Your task to perform on an android device: move a message to another label in the gmail app Image 0: 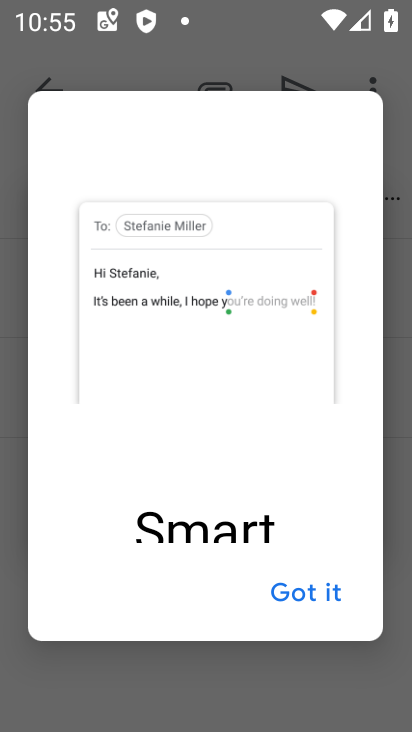
Step 0: press home button
Your task to perform on an android device: move a message to another label in the gmail app Image 1: 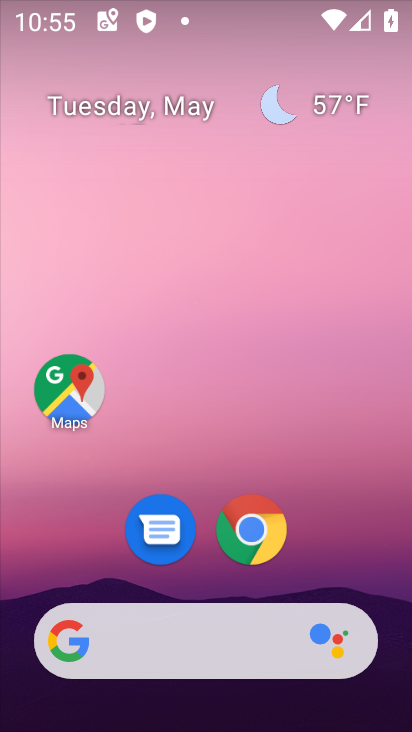
Step 1: drag from (201, 565) to (262, 0)
Your task to perform on an android device: move a message to another label in the gmail app Image 2: 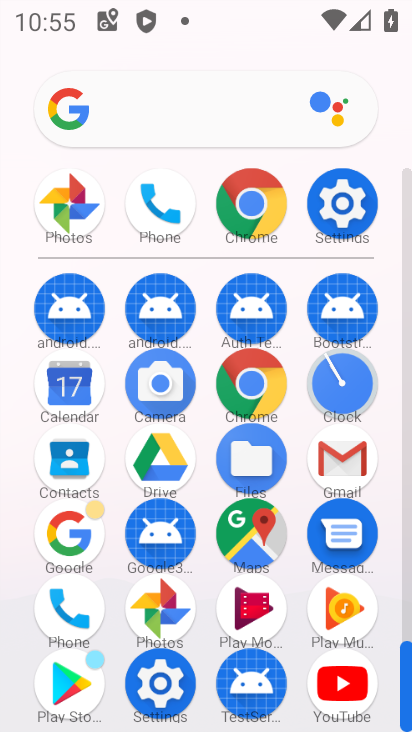
Step 2: click (365, 461)
Your task to perform on an android device: move a message to another label in the gmail app Image 3: 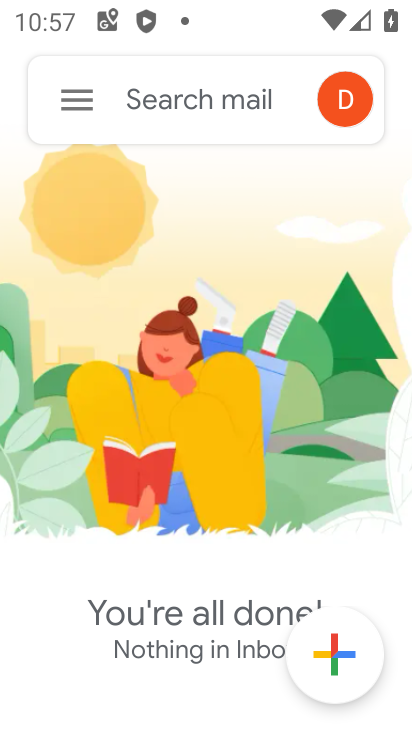
Step 3: task complete